Your task to perform on an android device: open a bookmark in the chrome app Image 0: 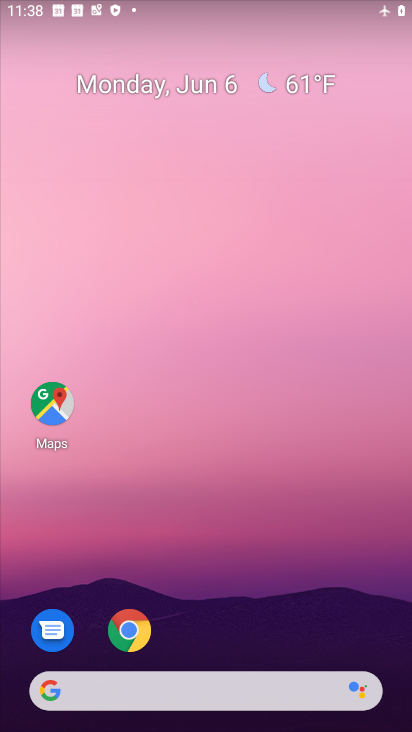
Step 0: drag from (273, 617) to (306, 74)
Your task to perform on an android device: open a bookmark in the chrome app Image 1: 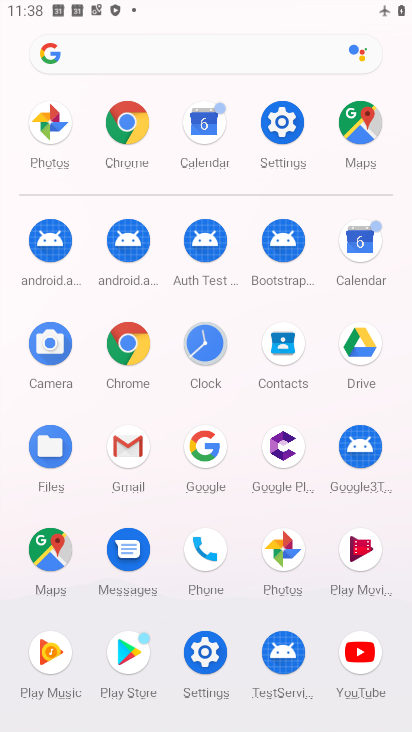
Step 1: click (120, 367)
Your task to perform on an android device: open a bookmark in the chrome app Image 2: 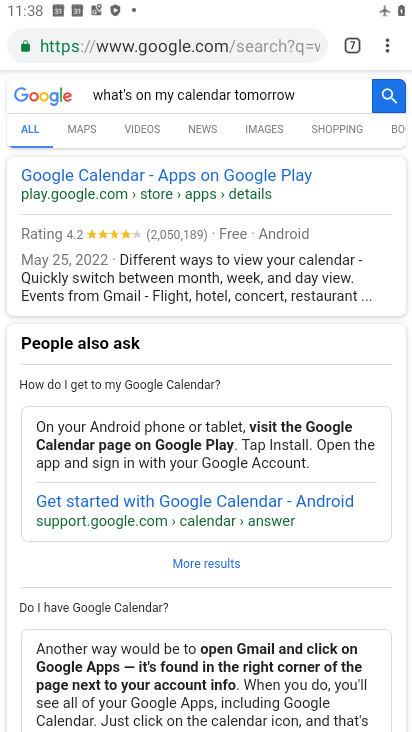
Step 2: drag from (385, 48) to (230, 506)
Your task to perform on an android device: open a bookmark in the chrome app Image 3: 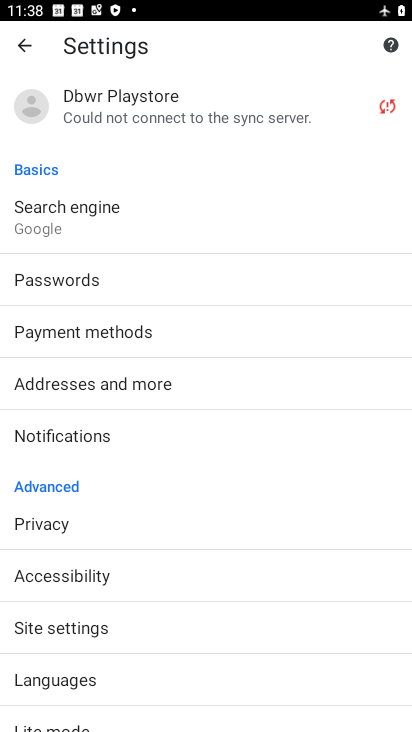
Step 3: drag from (167, 651) to (176, 418)
Your task to perform on an android device: open a bookmark in the chrome app Image 4: 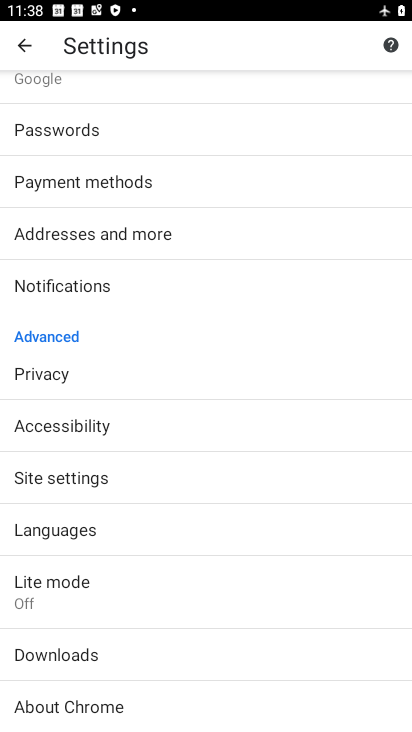
Step 4: click (39, 44)
Your task to perform on an android device: open a bookmark in the chrome app Image 5: 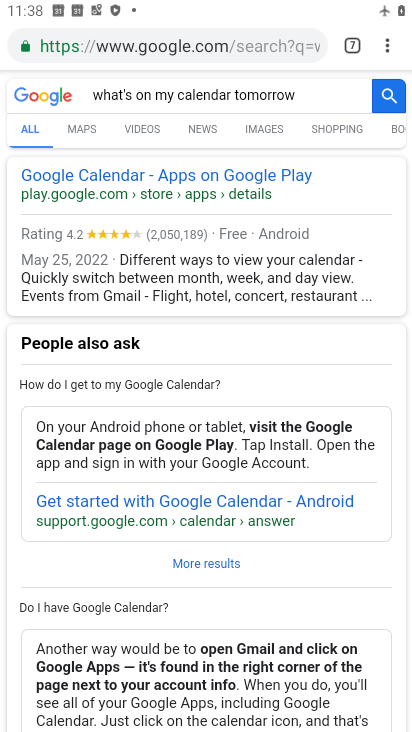
Step 5: drag from (387, 52) to (286, 185)
Your task to perform on an android device: open a bookmark in the chrome app Image 6: 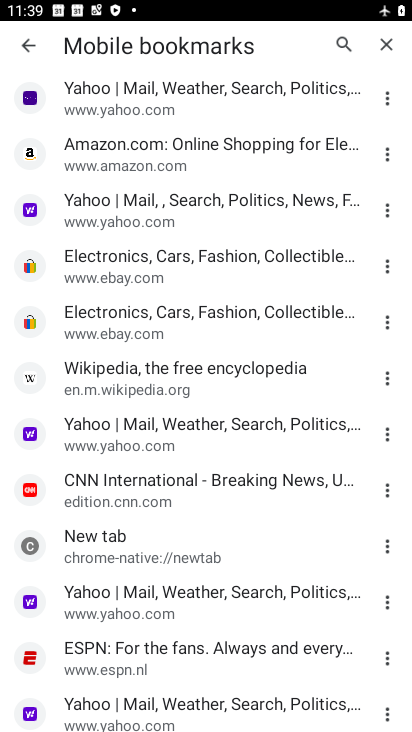
Step 6: click (380, 95)
Your task to perform on an android device: open a bookmark in the chrome app Image 7: 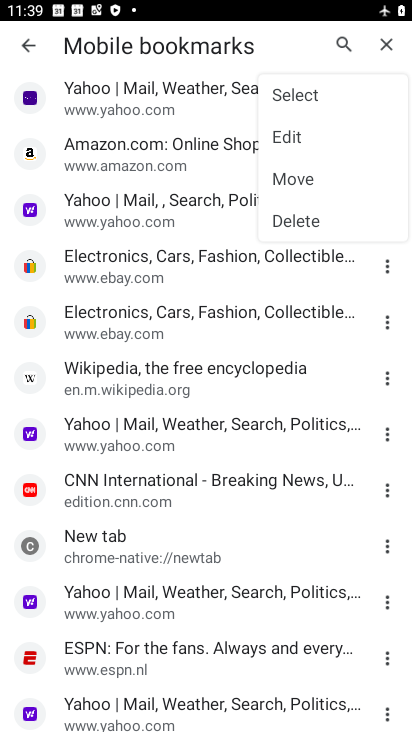
Step 7: click (286, 221)
Your task to perform on an android device: open a bookmark in the chrome app Image 8: 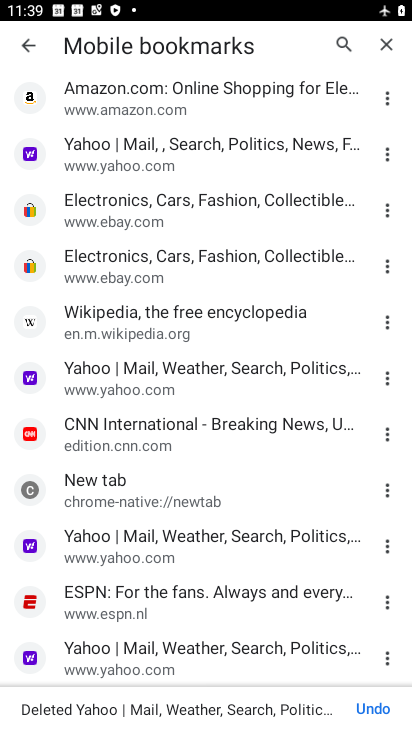
Step 8: task complete